Your task to perform on an android device: Open CNN.com Image 0: 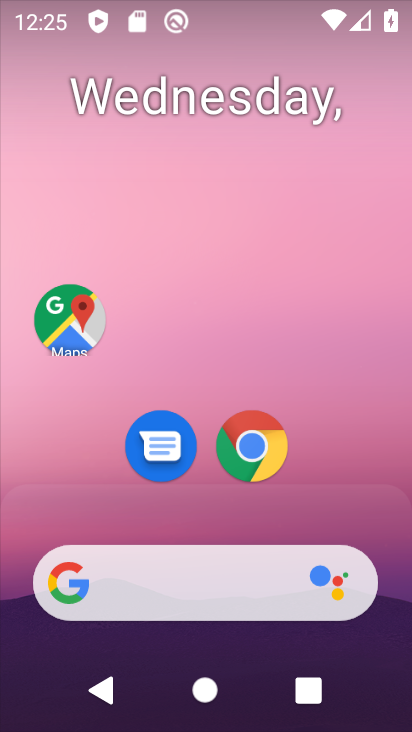
Step 0: drag from (225, 524) to (345, 7)
Your task to perform on an android device: Open CNN.com Image 1: 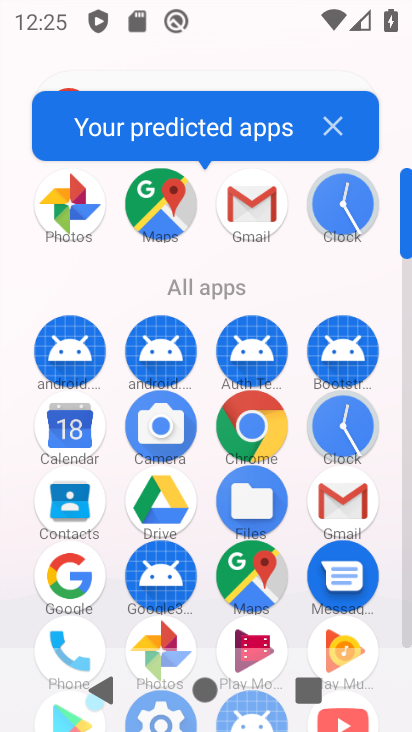
Step 1: click (310, 180)
Your task to perform on an android device: Open CNN.com Image 2: 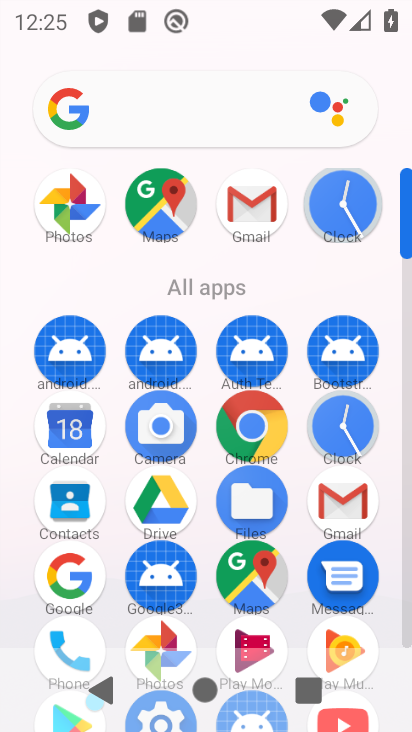
Step 2: click (258, 423)
Your task to perform on an android device: Open CNN.com Image 3: 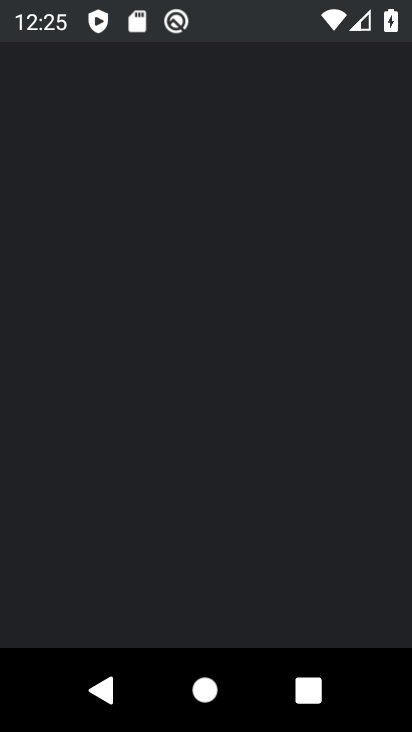
Step 3: click (258, 423)
Your task to perform on an android device: Open CNN.com Image 4: 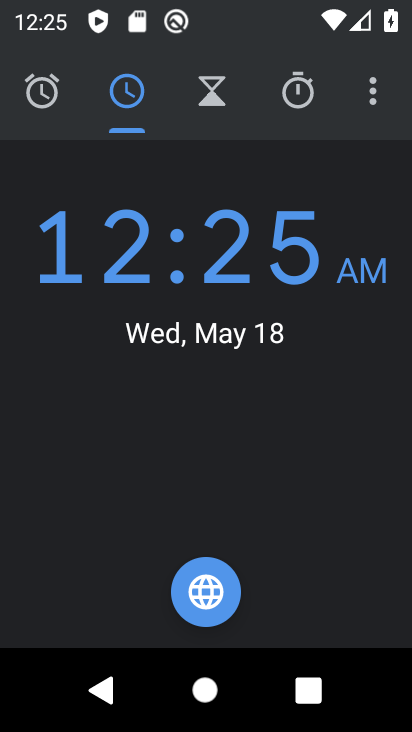
Step 4: click (371, 103)
Your task to perform on an android device: Open CNN.com Image 5: 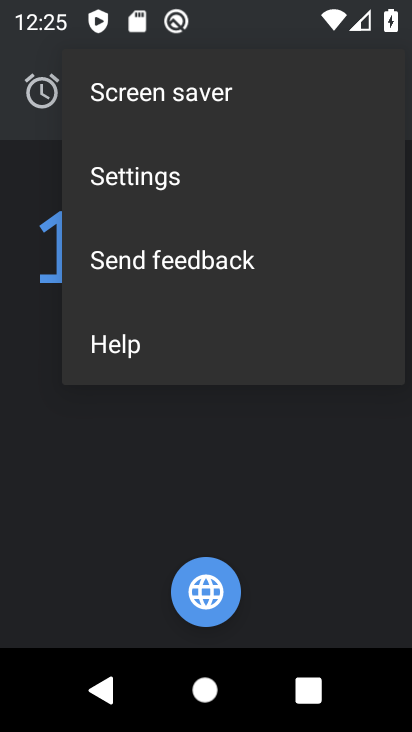
Step 5: click (372, 103)
Your task to perform on an android device: Open CNN.com Image 6: 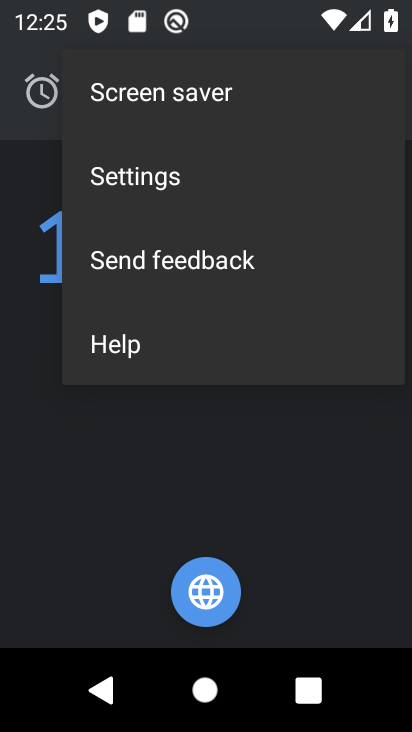
Step 6: click (372, 103)
Your task to perform on an android device: Open CNN.com Image 7: 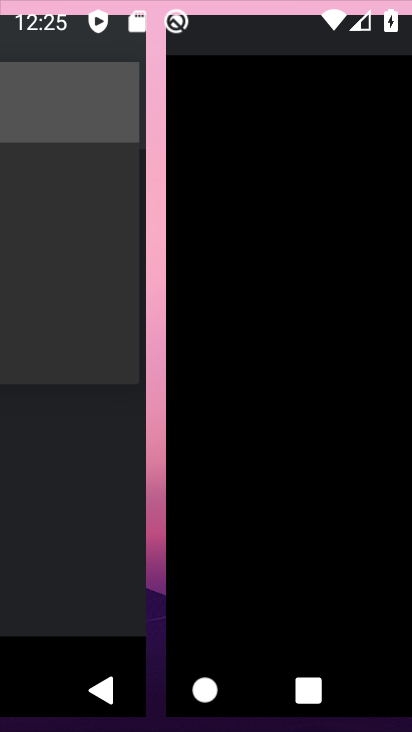
Step 7: click (372, 103)
Your task to perform on an android device: Open CNN.com Image 8: 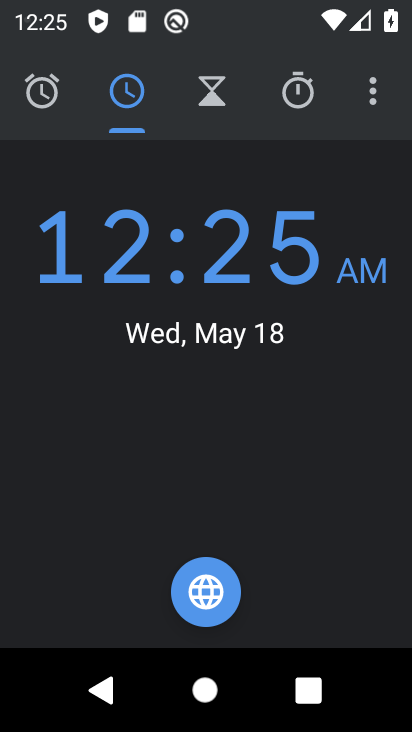
Step 8: click (161, 182)
Your task to perform on an android device: Open CNN.com Image 9: 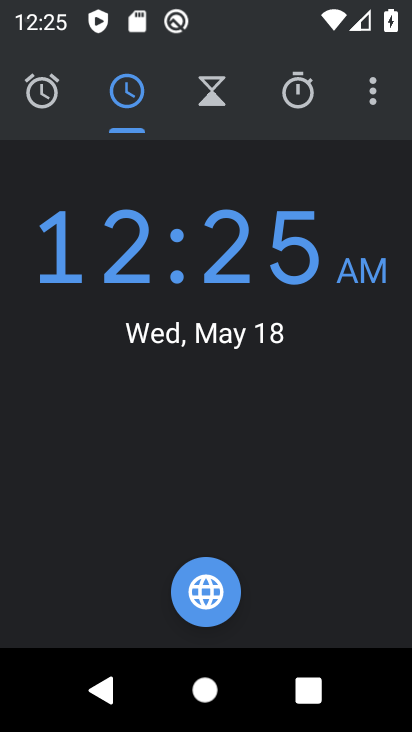
Step 9: click (145, 183)
Your task to perform on an android device: Open CNN.com Image 10: 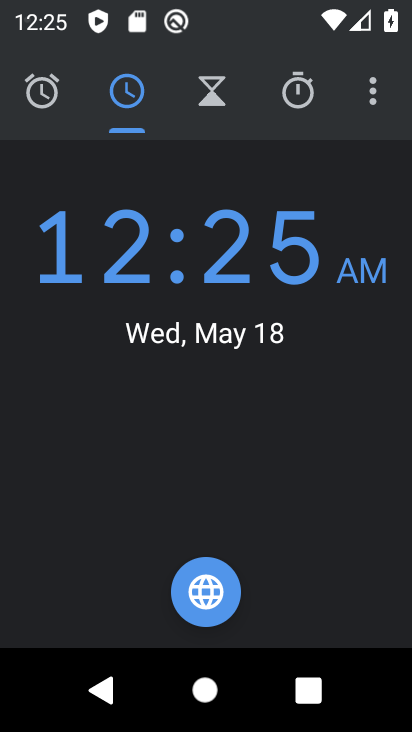
Step 10: click (376, 107)
Your task to perform on an android device: Open CNN.com Image 11: 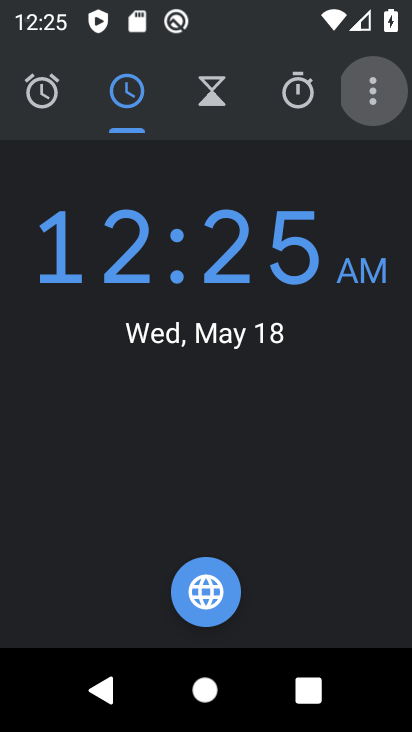
Step 11: click (370, 107)
Your task to perform on an android device: Open CNN.com Image 12: 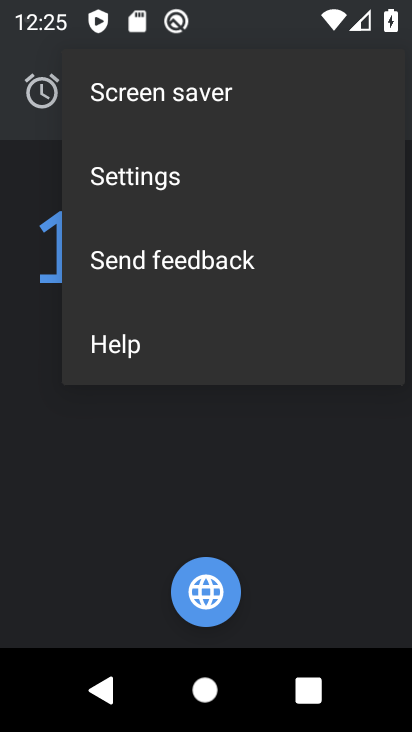
Step 12: click (159, 191)
Your task to perform on an android device: Open CNN.com Image 13: 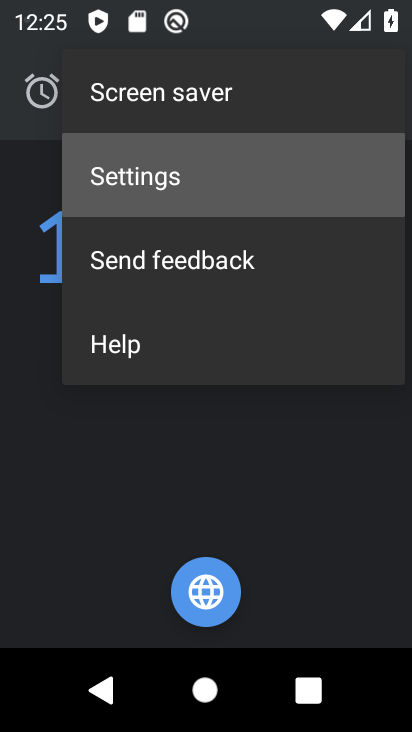
Step 13: click (156, 179)
Your task to perform on an android device: Open CNN.com Image 14: 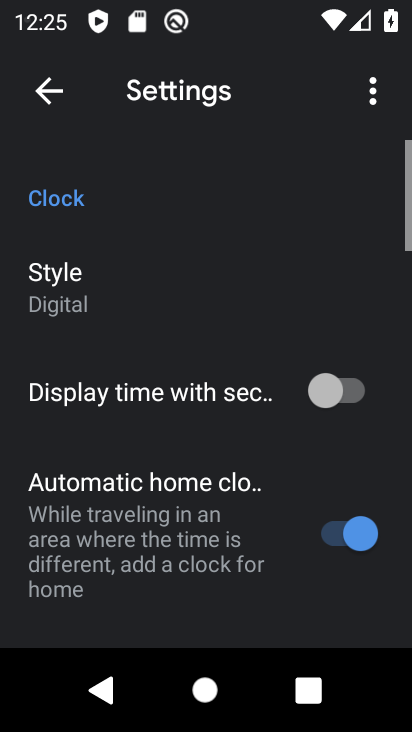
Step 14: click (165, 175)
Your task to perform on an android device: Open CNN.com Image 15: 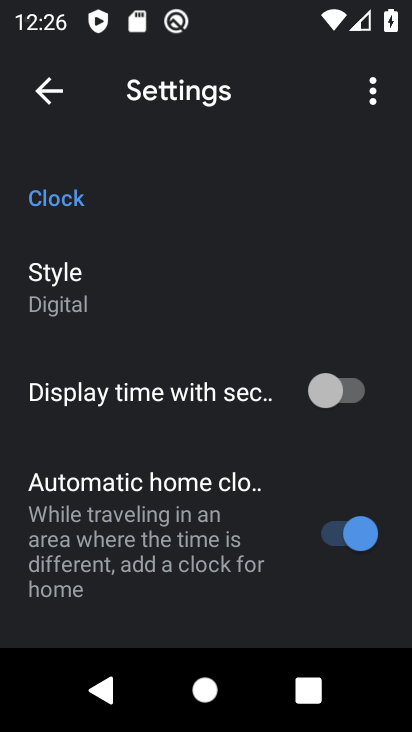
Step 15: press back button
Your task to perform on an android device: Open CNN.com Image 16: 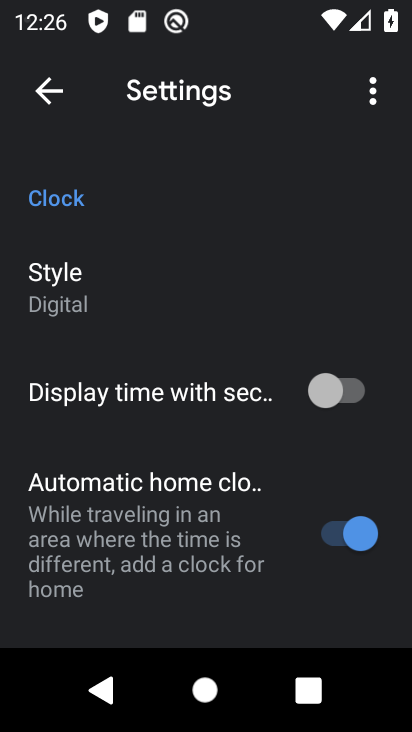
Step 16: press back button
Your task to perform on an android device: Open CNN.com Image 17: 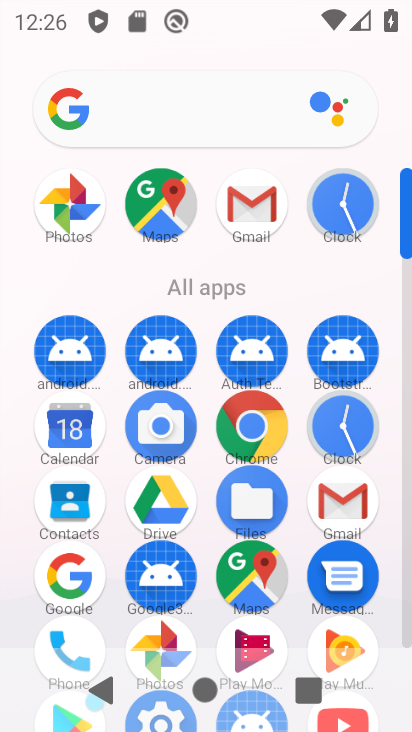
Step 17: click (239, 423)
Your task to perform on an android device: Open CNN.com Image 18: 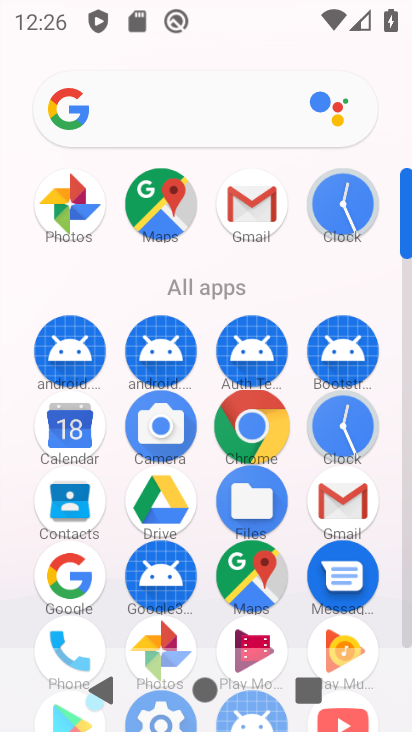
Step 18: click (239, 423)
Your task to perform on an android device: Open CNN.com Image 19: 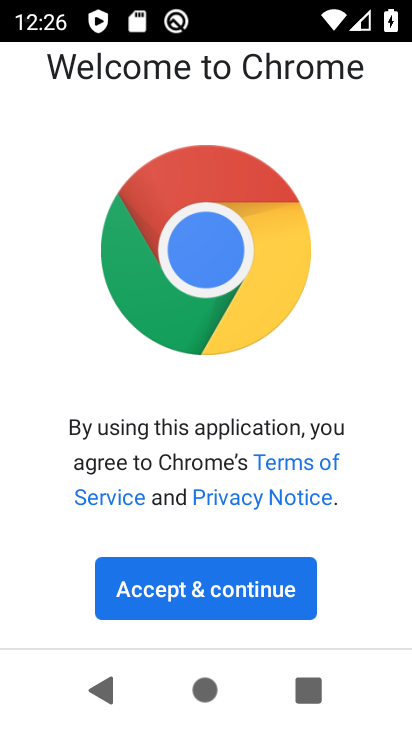
Step 19: click (200, 575)
Your task to perform on an android device: Open CNN.com Image 20: 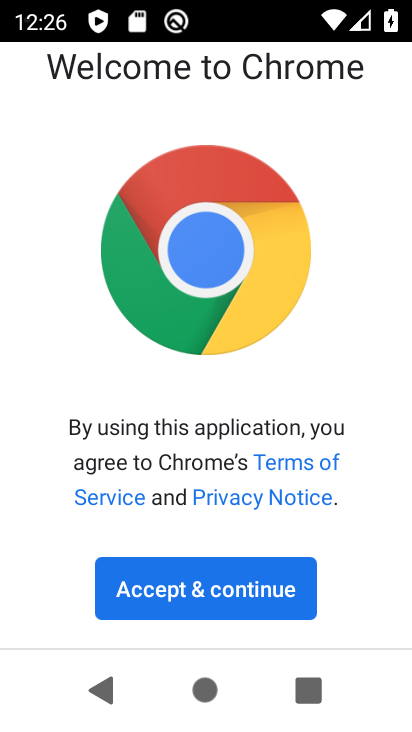
Step 20: click (202, 565)
Your task to perform on an android device: Open CNN.com Image 21: 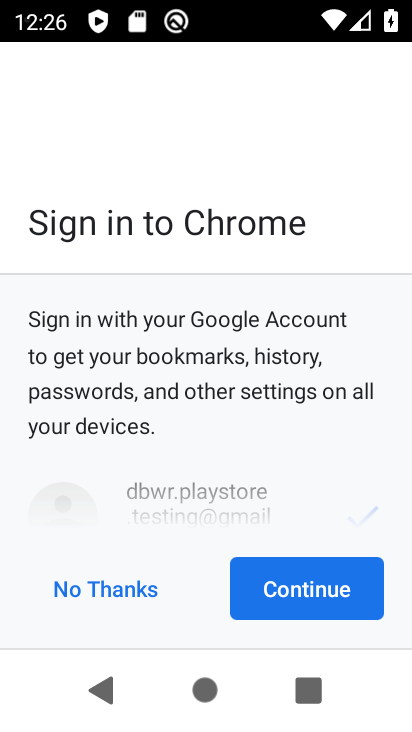
Step 21: click (308, 573)
Your task to perform on an android device: Open CNN.com Image 22: 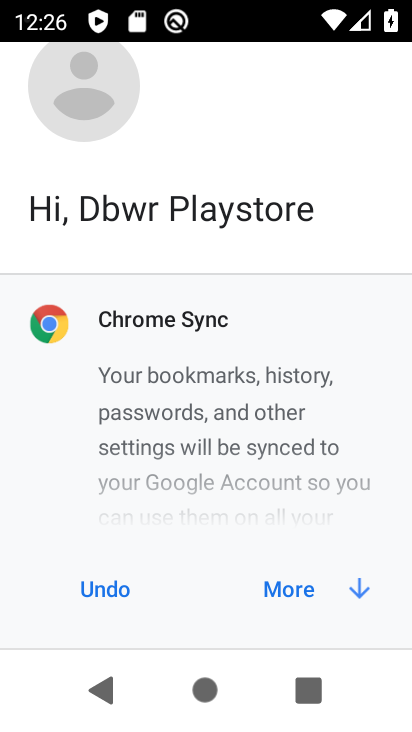
Step 22: click (309, 574)
Your task to perform on an android device: Open CNN.com Image 23: 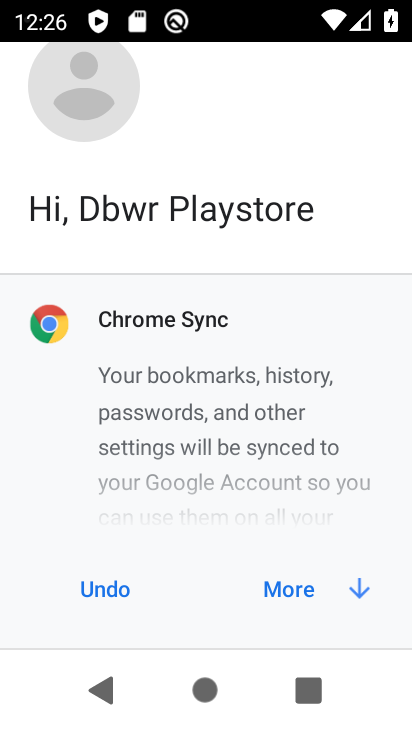
Step 23: click (309, 575)
Your task to perform on an android device: Open CNN.com Image 24: 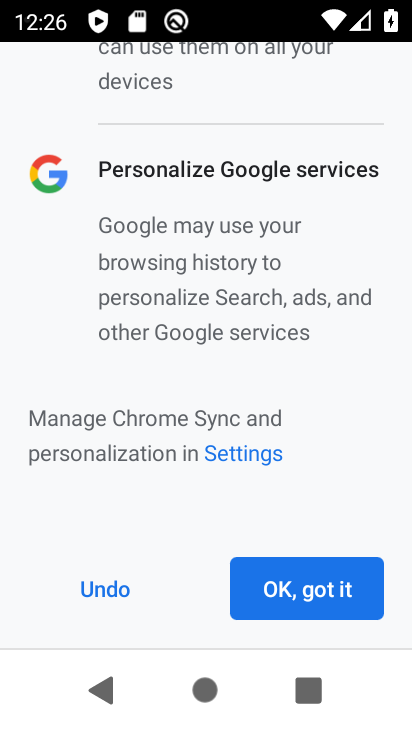
Step 24: click (309, 575)
Your task to perform on an android device: Open CNN.com Image 25: 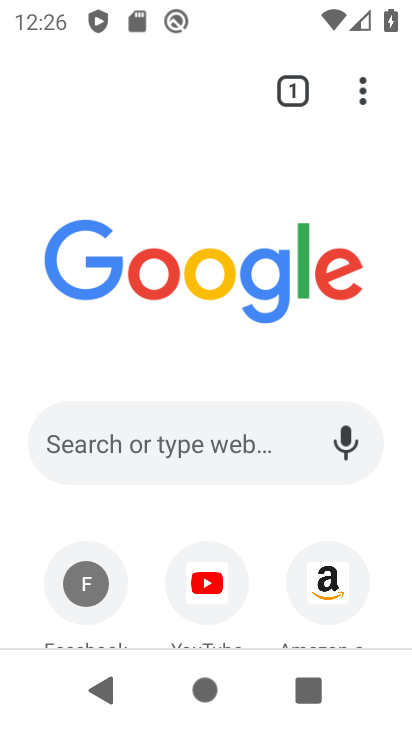
Step 25: drag from (246, 549) to (243, 309)
Your task to perform on an android device: Open CNN.com Image 26: 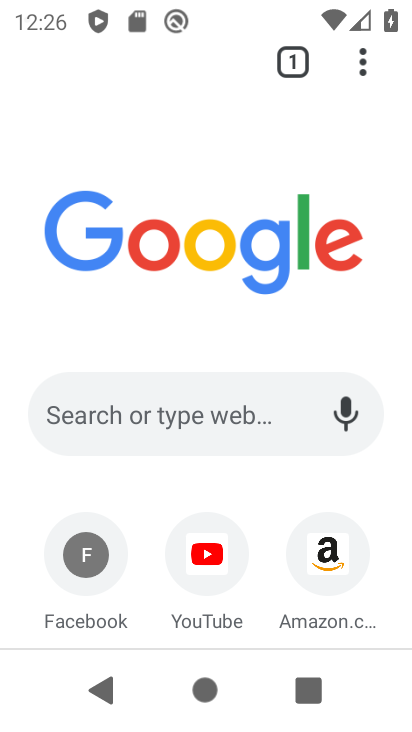
Step 26: drag from (247, 445) to (225, 222)
Your task to perform on an android device: Open CNN.com Image 27: 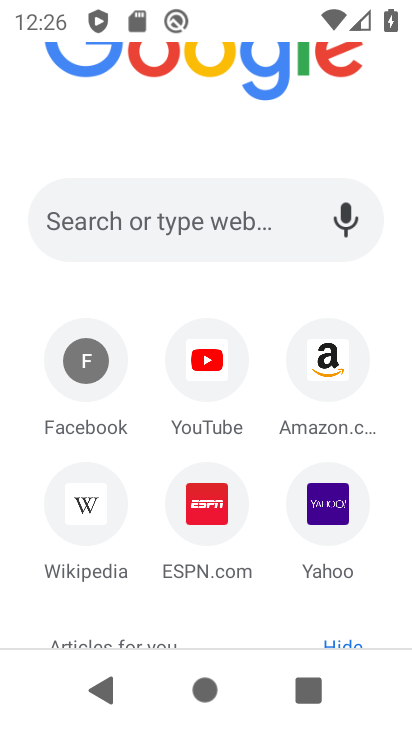
Step 27: type "cc"
Your task to perform on an android device: Open CNN.com Image 28: 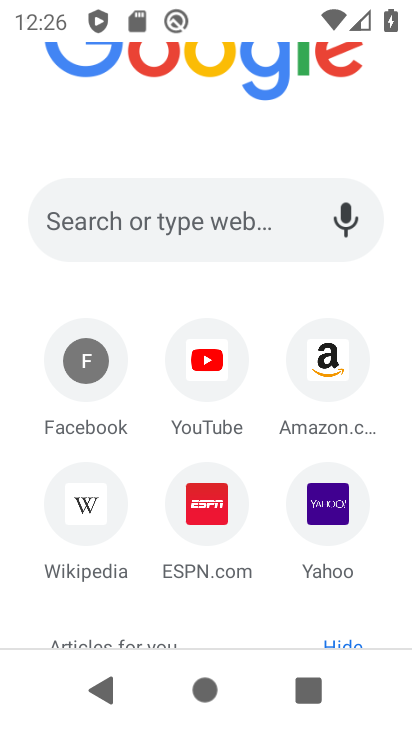
Step 28: click (92, 217)
Your task to perform on an android device: Open CNN.com Image 29: 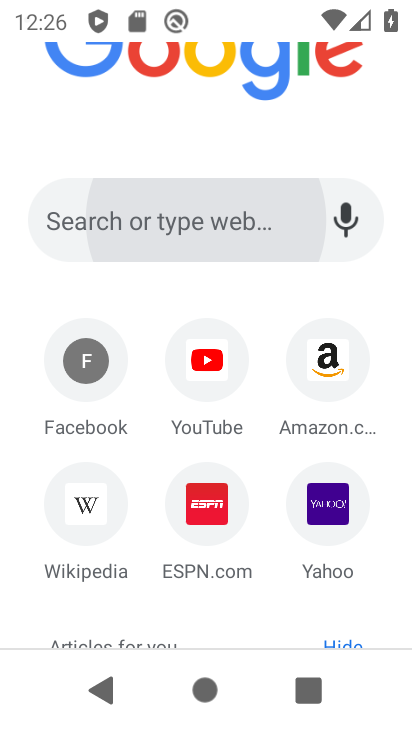
Step 29: click (92, 222)
Your task to perform on an android device: Open CNN.com Image 30: 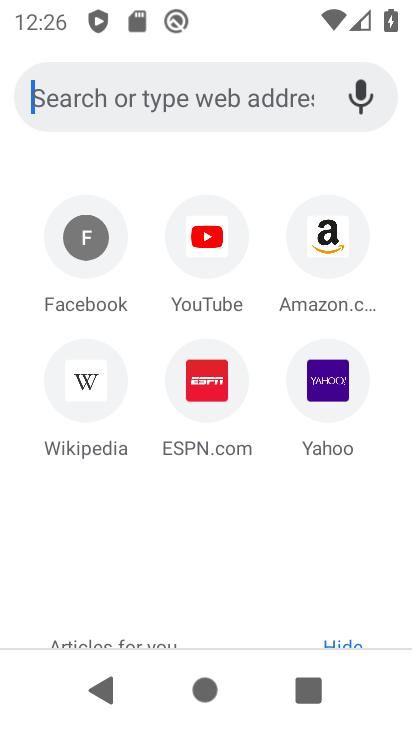
Step 30: click (92, 222)
Your task to perform on an android device: Open CNN.com Image 31: 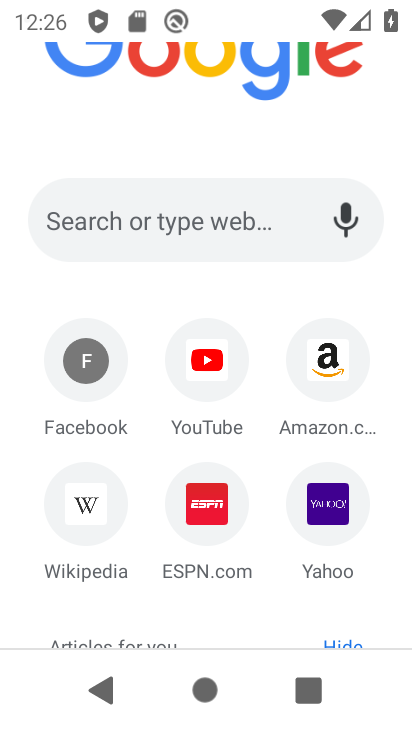
Step 31: click (91, 226)
Your task to perform on an android device: Open CNN.com Image 32: 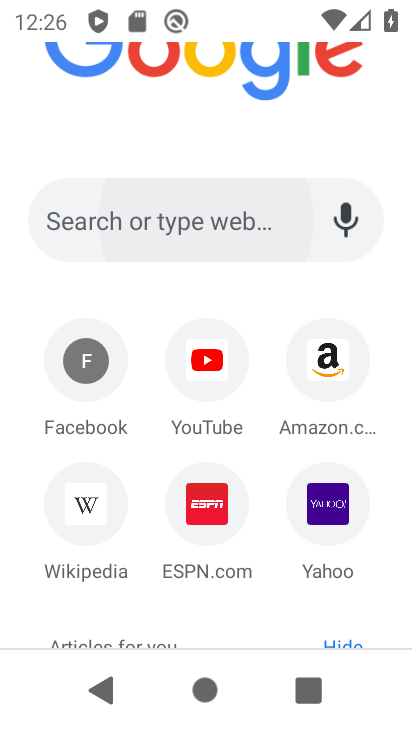
Step 32: click (93, 223)
Your task to perform on an android device: Open CNN.com Image 33: 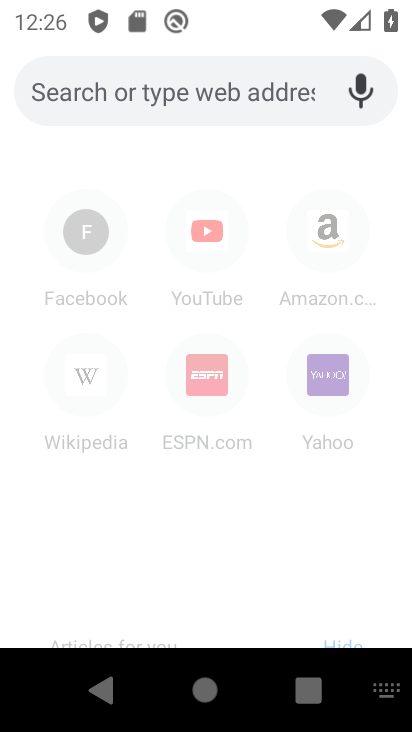
Step 33: type "cnn.com"
Your task to perform on an android device: Open CNN.com Image 34: 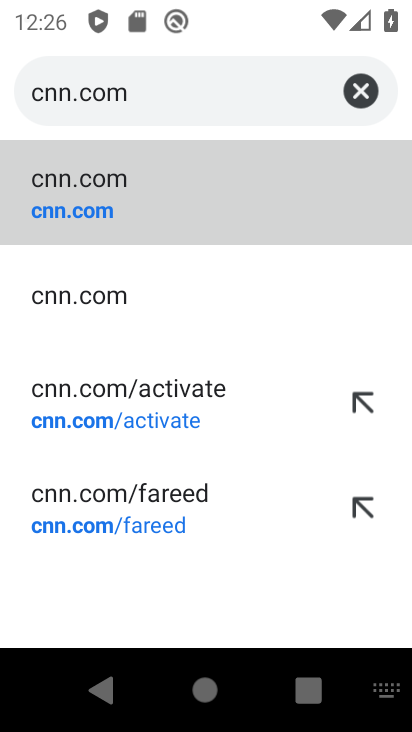
Step 34: click (101, 201)
Your task to perform on an android device: Open CNN.com Image 35: 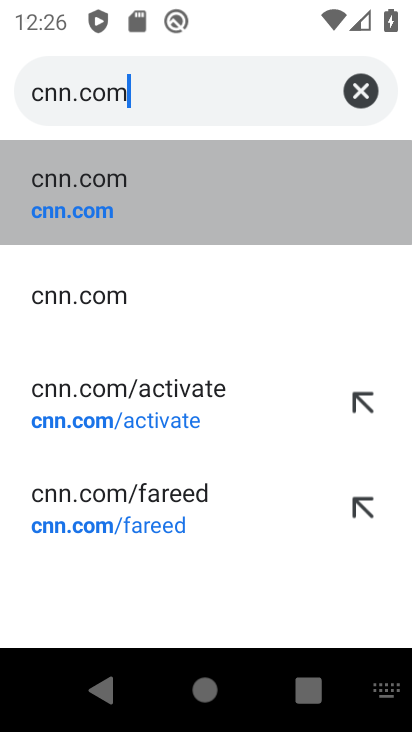
Step 35: click (100, 201)
Your task to perform on an android device: Open CNN.com Image 36: 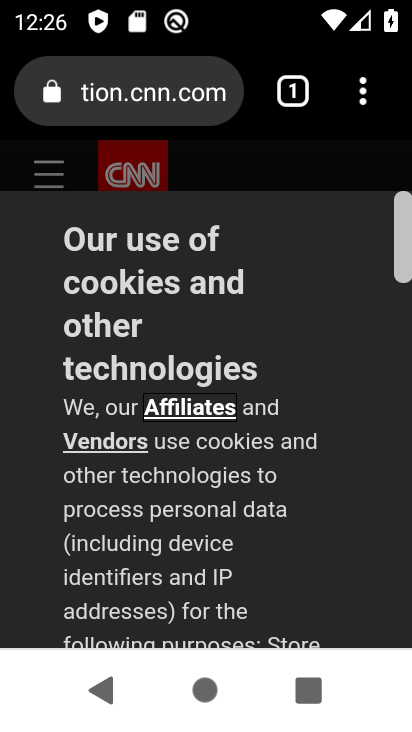
Step 36: task complete